Your task to perform on an android device: Open Reddit.com Image 0: 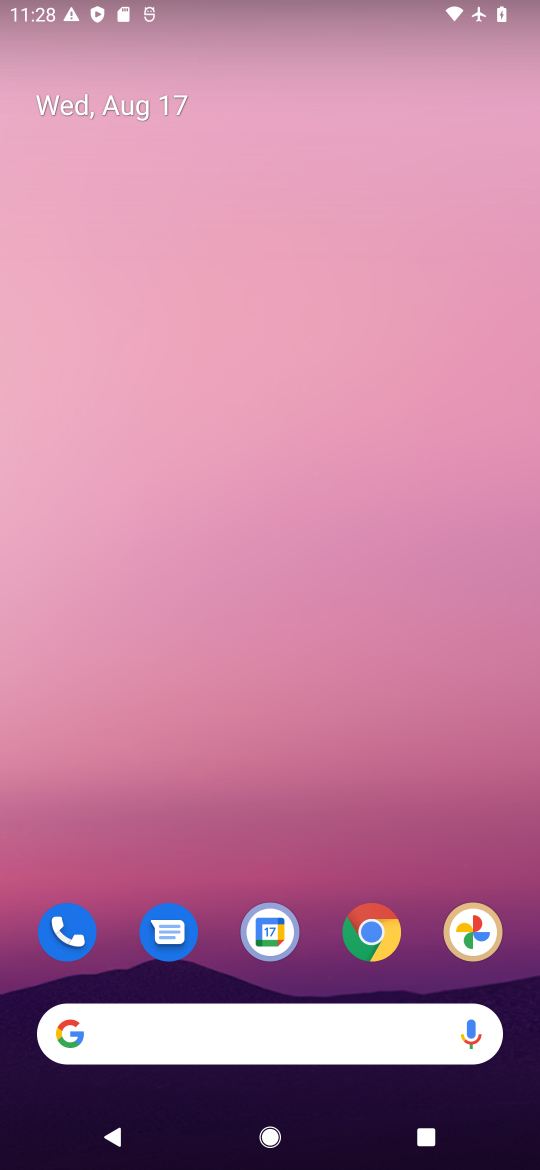
Step 0: click (359, 933)
Your task to perform on an android device: Open Reddit.com Image 1: 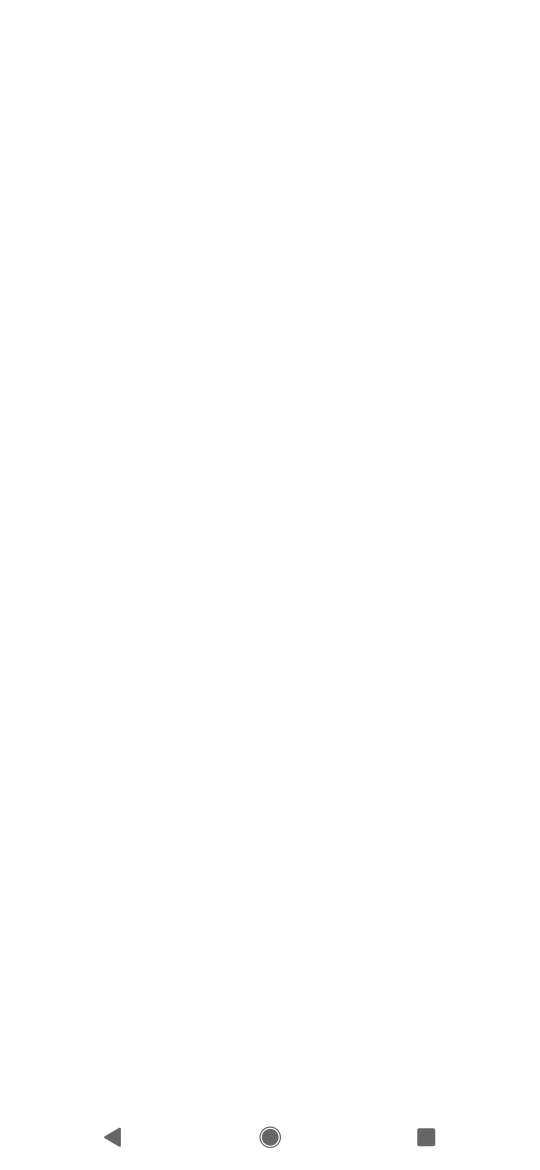
Step 1: task complete